Your task to perform on an android device: Go to CNN.com Image 0: 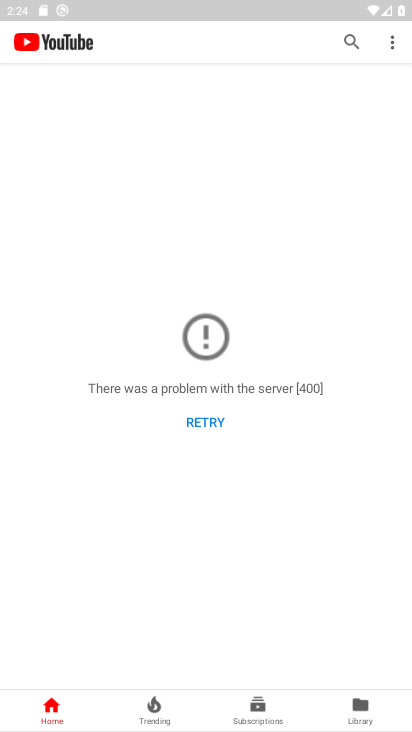
Step 0: press home button
Your task to perform on an android device: Go to CNN.com Image 1: 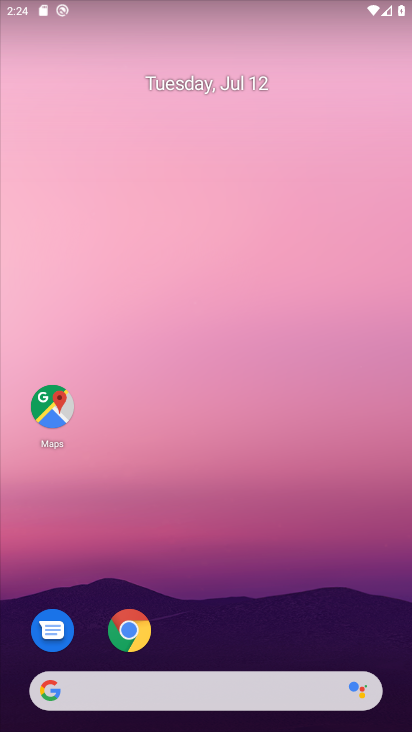
Step 1: click (127, 620)
Your task to perform on an android device: Go to CNN.com Image 2: 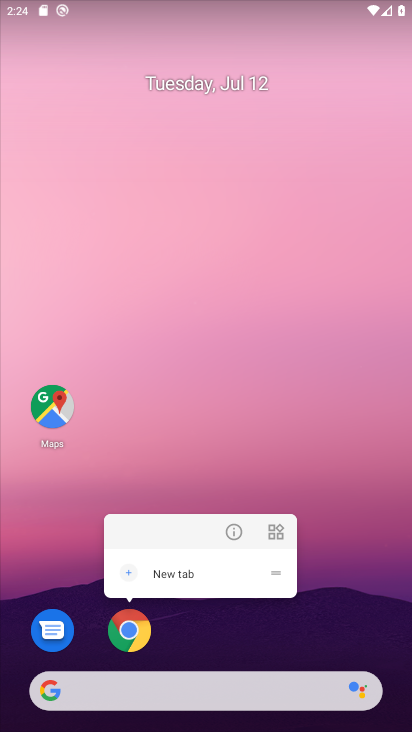
Step 2: click (129, 633)
Your task to perform on an android device: Go to CNN.com Image 3: 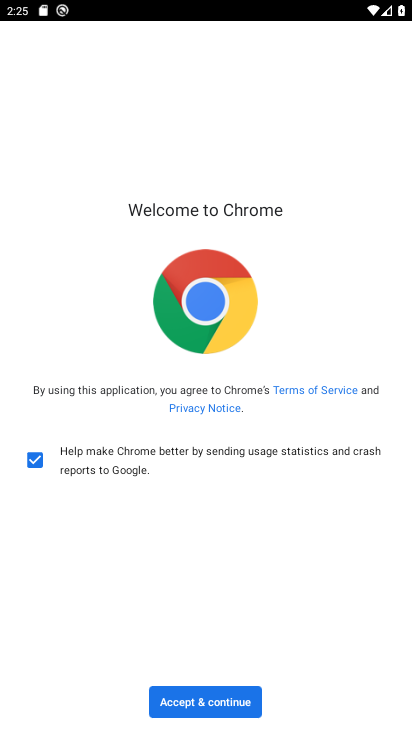
Step 3: click (205, 692)
Your task to perform on an android device: Go to CNN.com Image 4: 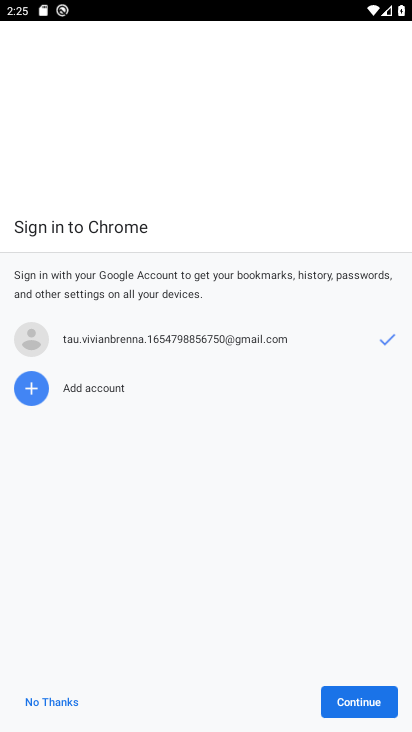
Step 4: click (360, 699)
Your task to perform on an android device: Go to CNN.com Image 5: 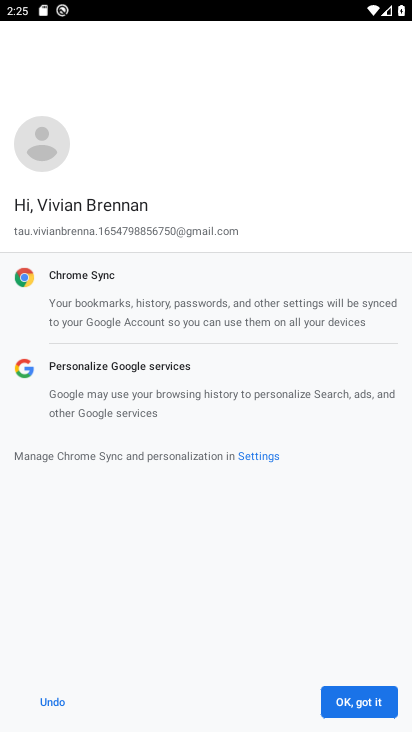
Step 5: click (359, 698)
Your task to perform on an android device: Go to CNN.com Image 6: 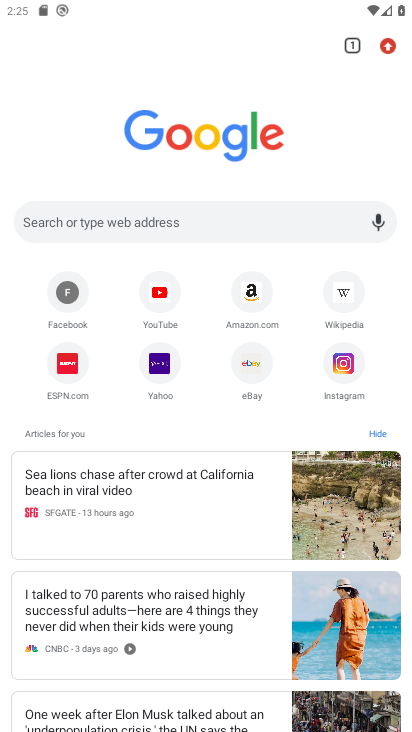
Step 6: click (175, 219)
Your task to perform on an android device: Go to CNN.com Image 7: 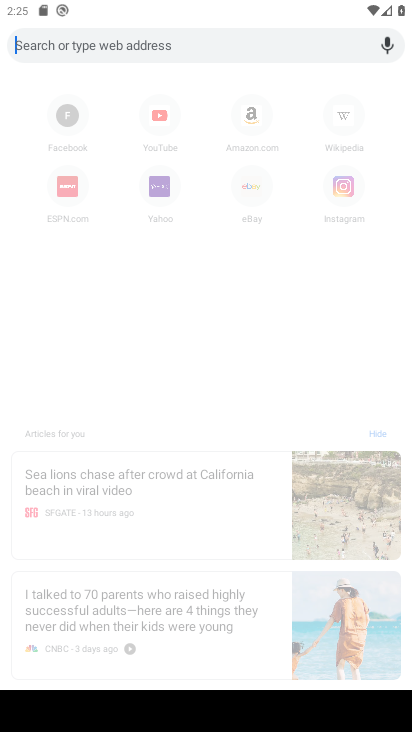
Step 7: type "cnn.com"
Your task to perform on an android device: Go to CNN.com Image 8: 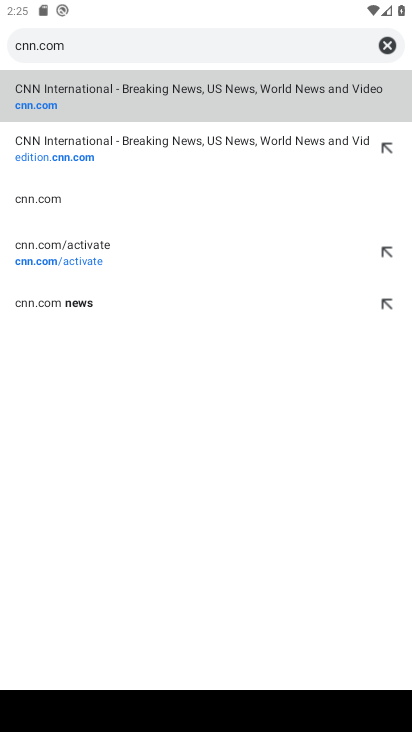
Step 8: click (109, 90)
Your task to perform on an android device: Go to CNN.com Image 9: 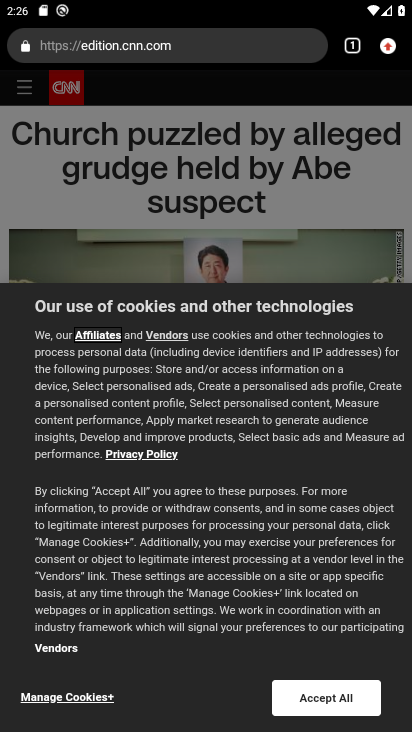
Step 9: click (329, 696)
Your task to perform on an android device: Go to CNN.com Image 10: 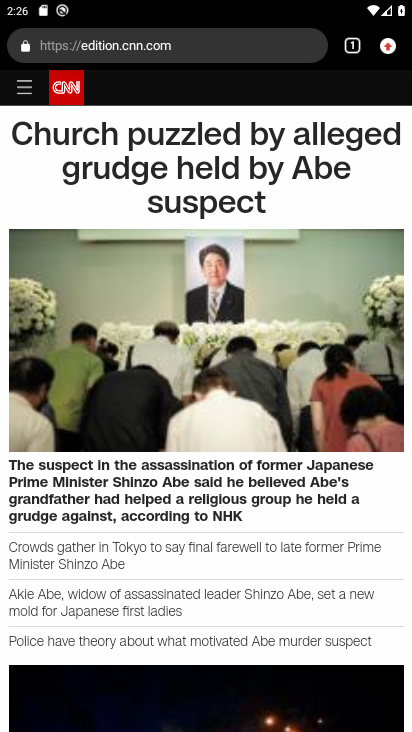
Step 10: task complete